Your task to perform on an android device: Open CNN.com Image 0: 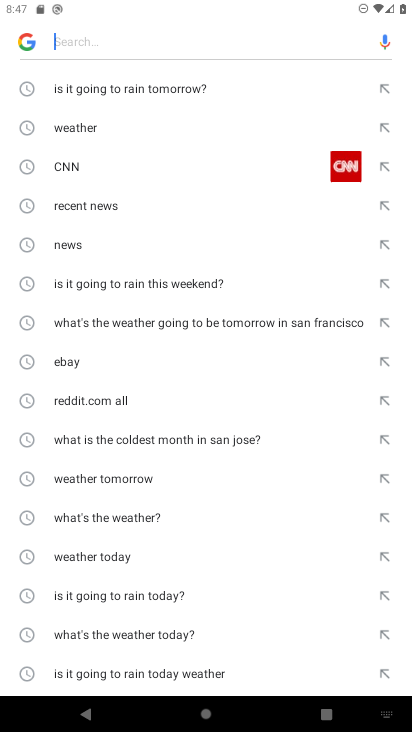
Step 0: click (94, 165)
Your task to perform on an android device: Open CNN.com Image 1: 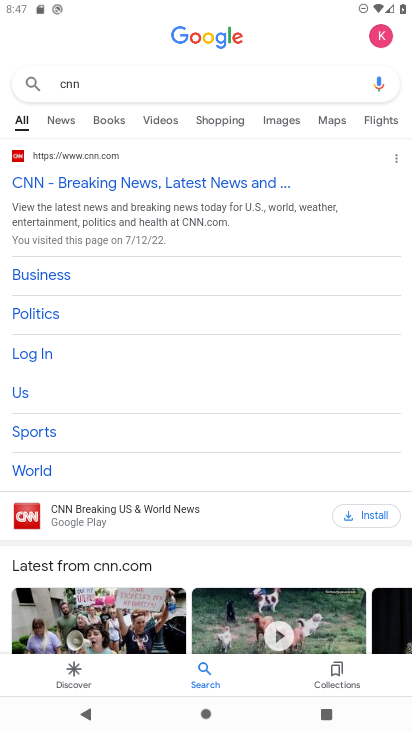
Step 1: click (44, 206)
Your task to perform on an android device: Open CNN.com Image 2: 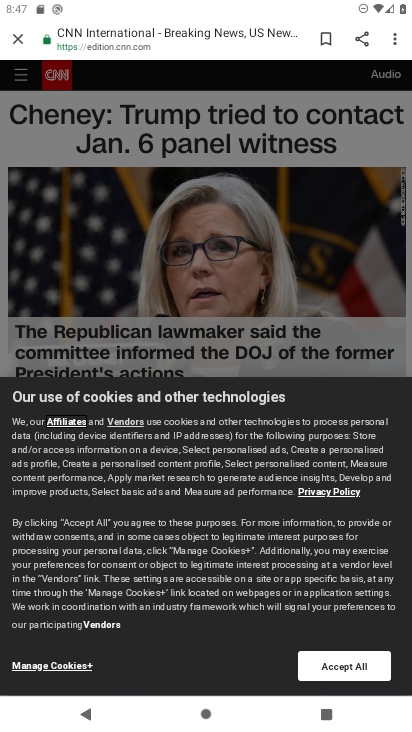
Step 2: task complete